Your task to perform on an android device: check out phone information Image 0: 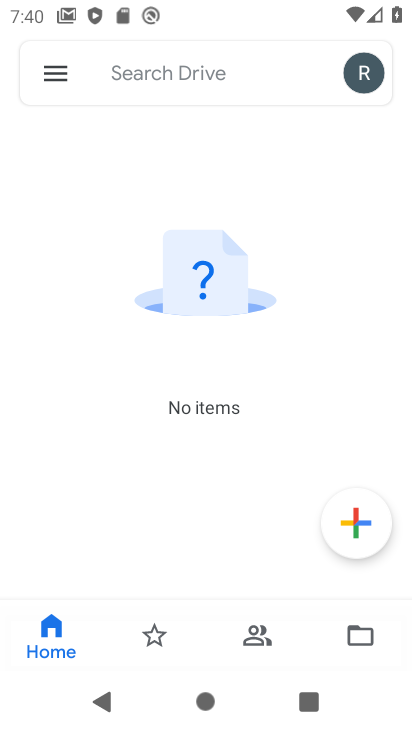
Step 0: press home button
Your task to perform on an android device: check out phone information Image 1: 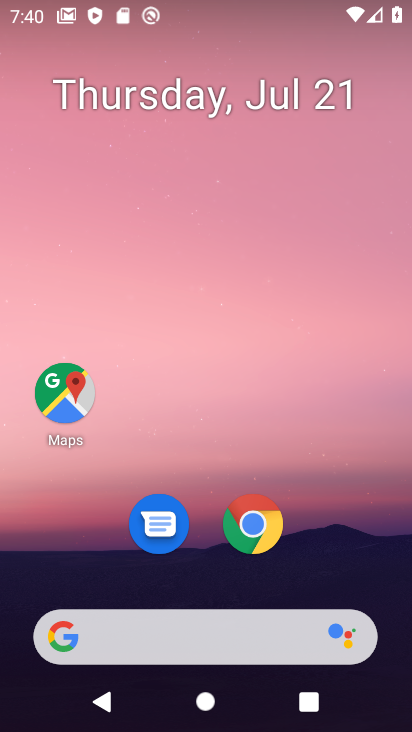
Step 1: drag from (177, 626) to (296, 191)
Your task to perform on an android device: check out phone information Image 2: 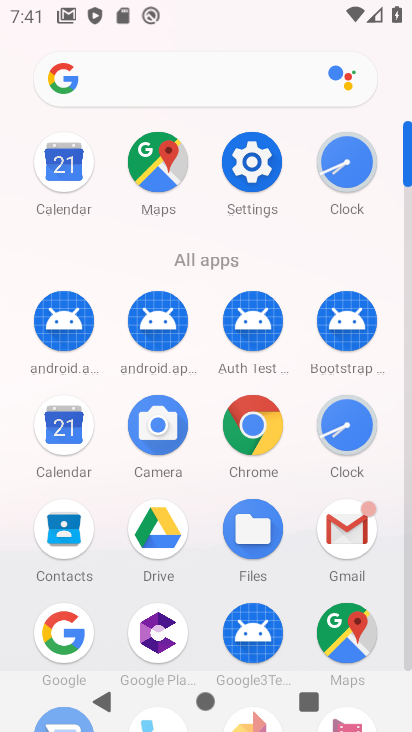
Step 2: click (243, 157)
Your task to perform on an android device: check out phone information Image 3: 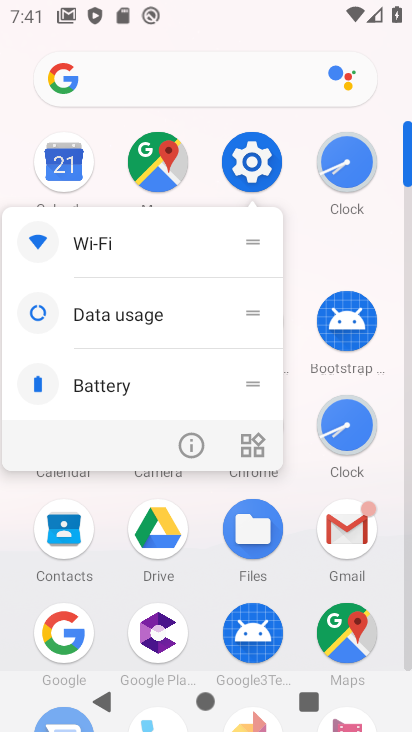
Step 3: click (244, 155)
Your task to perform on an android device: check out phone information Image 4: 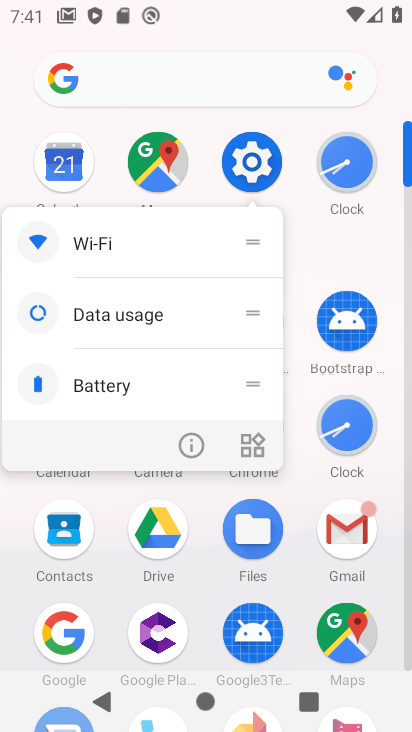
Step 4: click (253, 166)
Your task to perform on an android device: check out phone information Image 5: 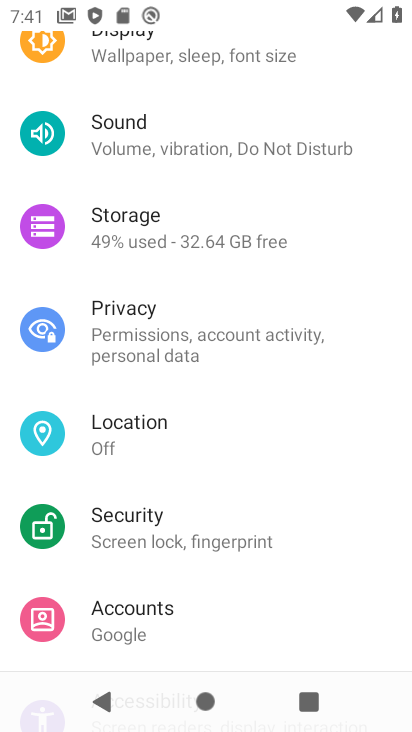
Step 5: drag from (200, 601) to (367, 157)
Your task to perform on an android device: check out phone information Image 6: 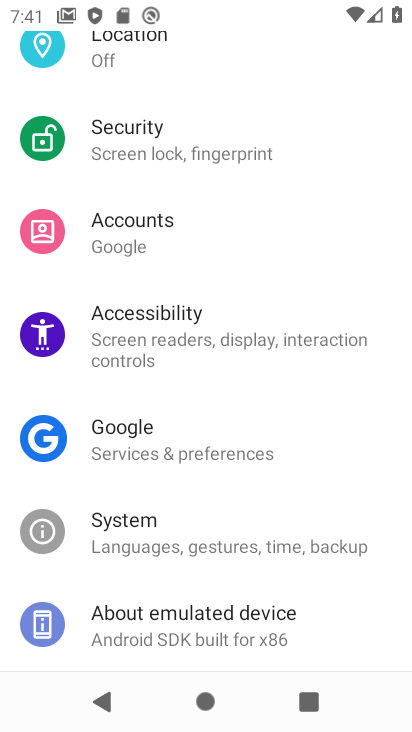
Step 6: click (201, 626)
Your task to perform on an android device: check out phone information Image 7: 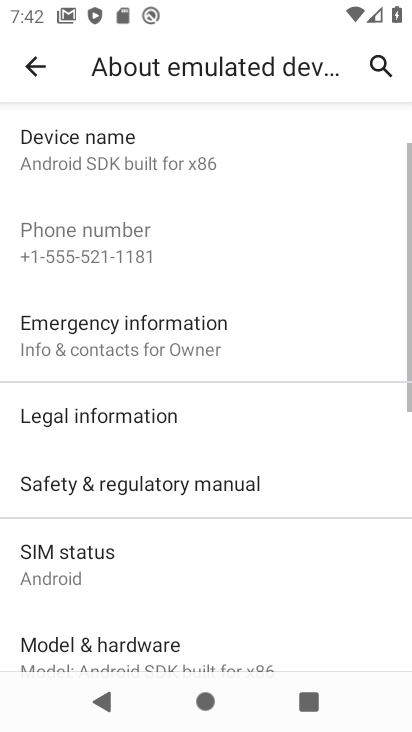
Step 7: task complete